Your task to perform on an android device: change the clock display to show seconds Image 0: 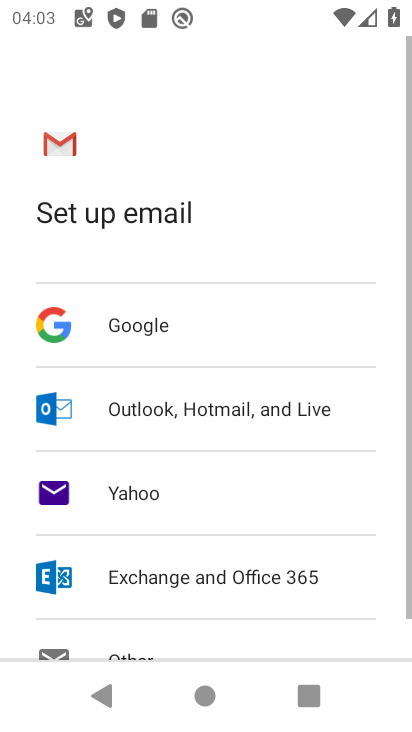
Step 0: press home button
Your task to perform on an android device: change the clock display to show seconds Image 1: 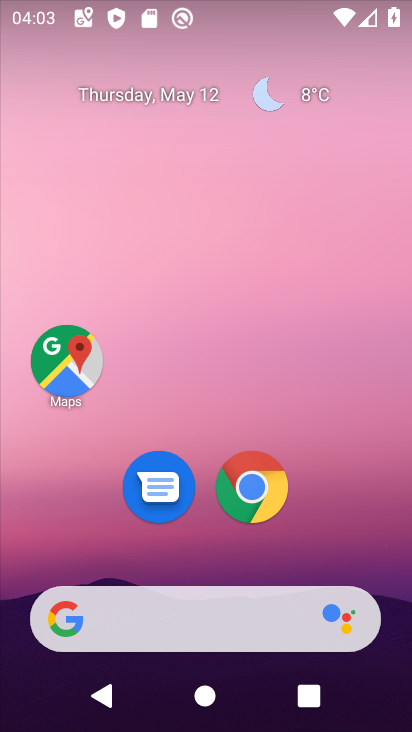
Step 1: drag from (330, 508) to (226, 114)
Your task to perform on an android device: change the clock display to show seconds Image 2: 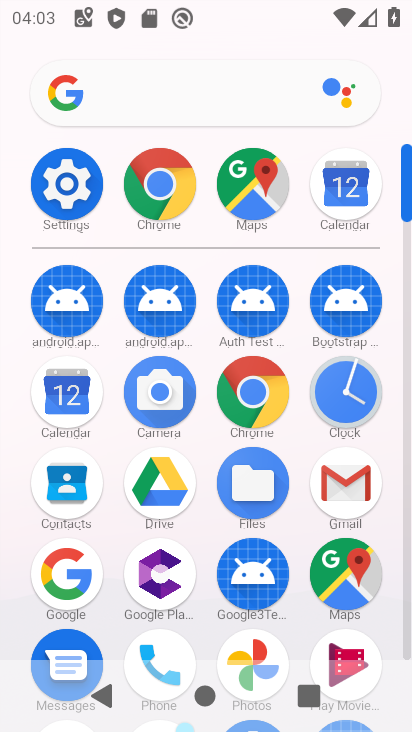
Step 2: click (340, 400)
Your task to perform on an android device: change the clock display to show seconds Image 3: 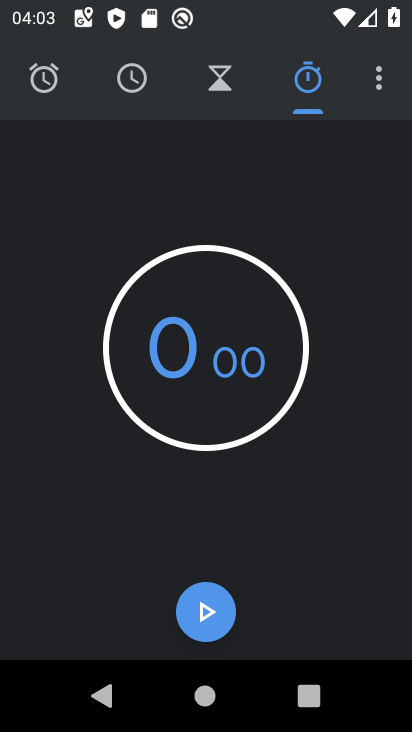
Step 3: click (380, 78)
Your task to perform on an android device: change the clock display to show seconds Image 4: 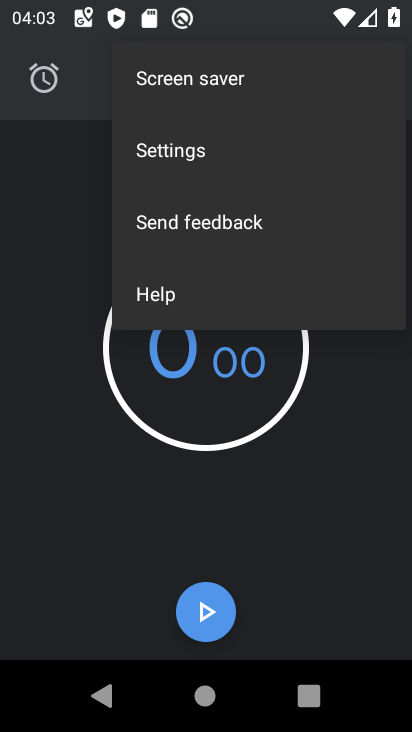
Step 4: click (183, 159)
Your task to perform on an android device: change the clock display to show seconds Image 5: 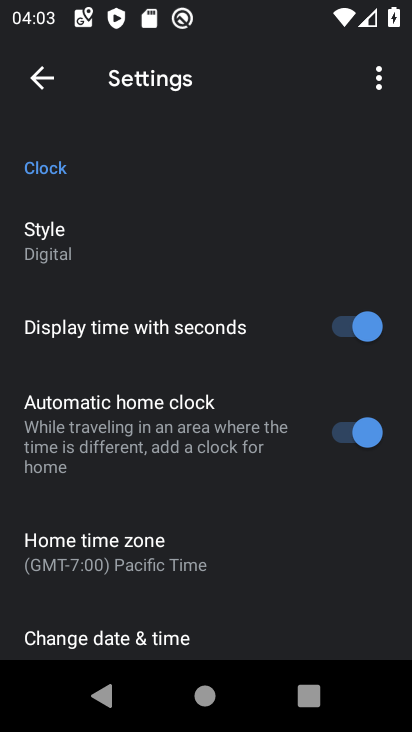
Step 5: task complete